Your task to perform on an android device: Open internet settings Image 0: 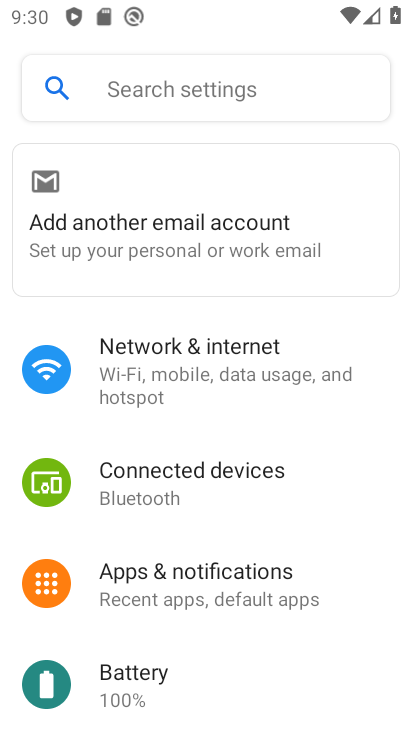
Step 0: press home button
Your task to perform on an android device: Open internet settings Image 1: 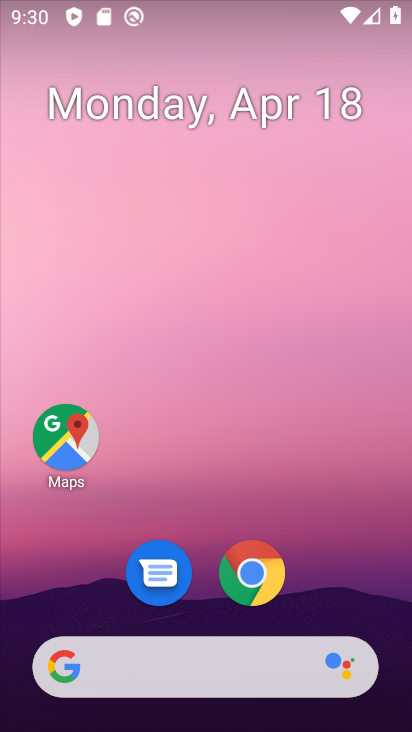
Step 1: drag from (344, 551) to (230, 23)
Your task to perform on an android device: Open internet settings Image 2: 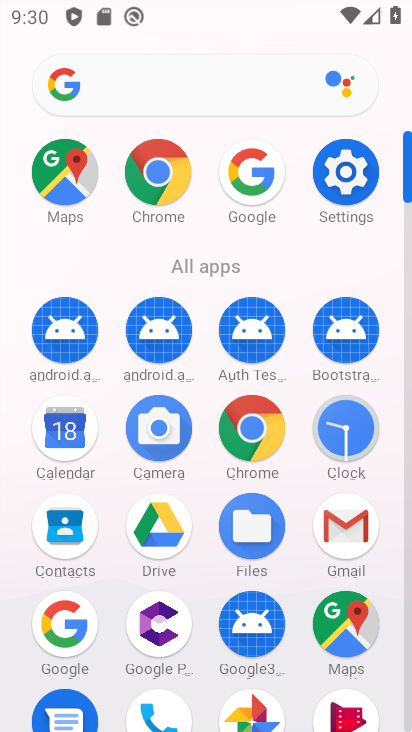
Step 2: click (342, 174)
Your task to perform on an android device: Open internet settings Image 3: 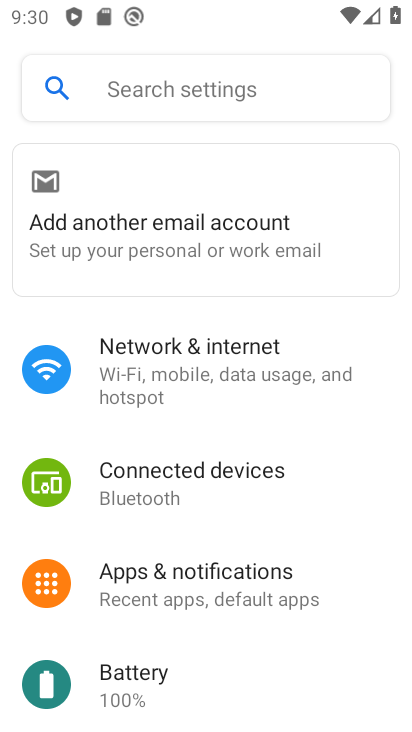
Step 3: click (237, 358)
Your task to perform on an android device: Open internet settings Image 4: 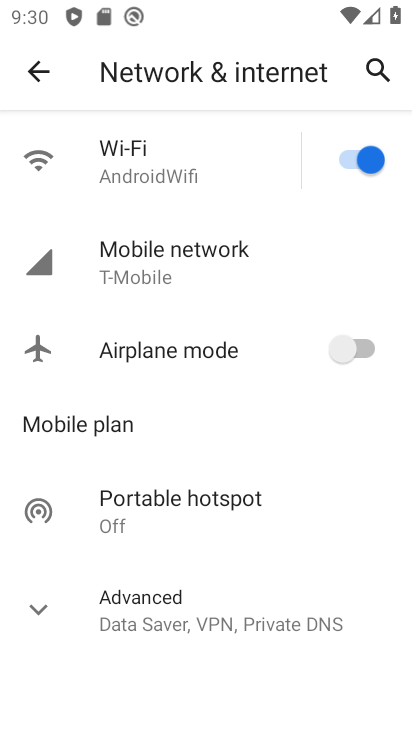
Step 4: click (156, 153)
Your task to perform on an android device: Open internet settings Image 5: 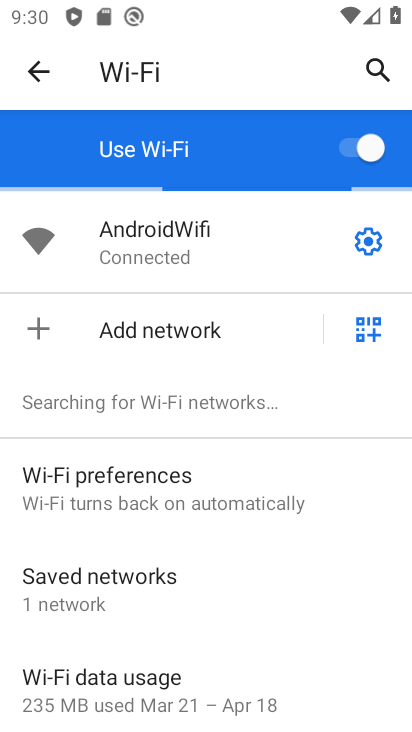
Step 5: task complete